Your task to perform on an android device: toggle show notifications on the lock screen Image 0: 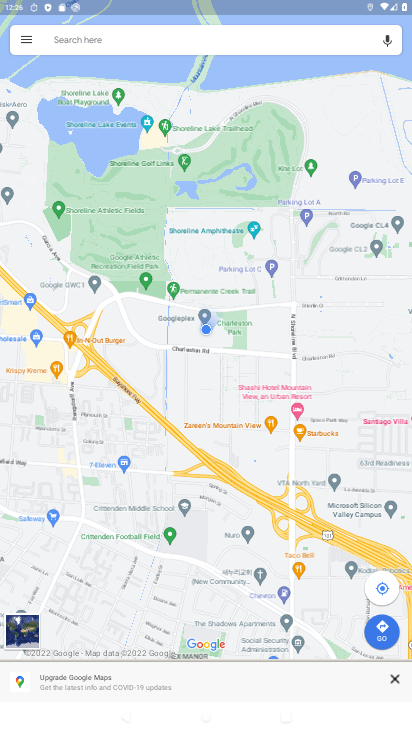
Step 0: press home button
Your task to perform on an android device: toggle show notifications on the lock screen Image 1: 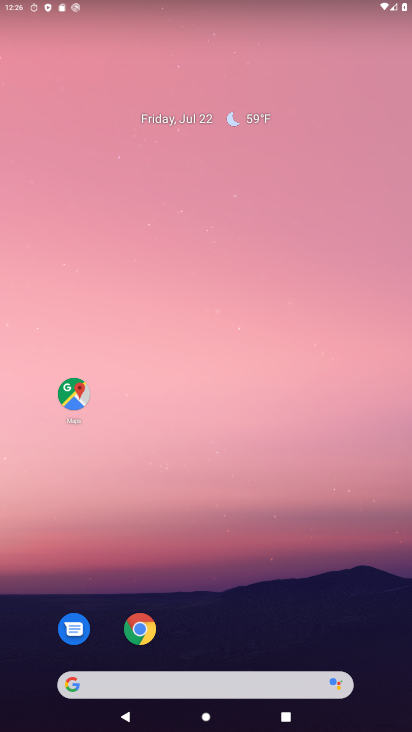
Step 1: drag from (138, 691) to (403, 9)
Your task to perform on an android device: toggle show notifications on the lock screen Image 2: 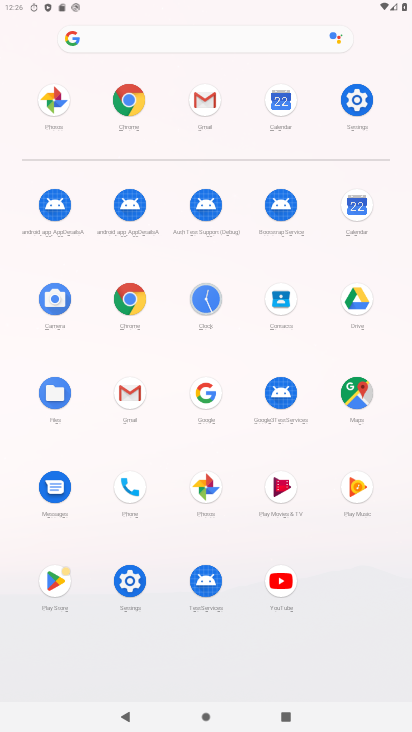
Step 2: click (354, 99)
Your task to perform on an android device: toggle show notifications on the lock screen Image 3: 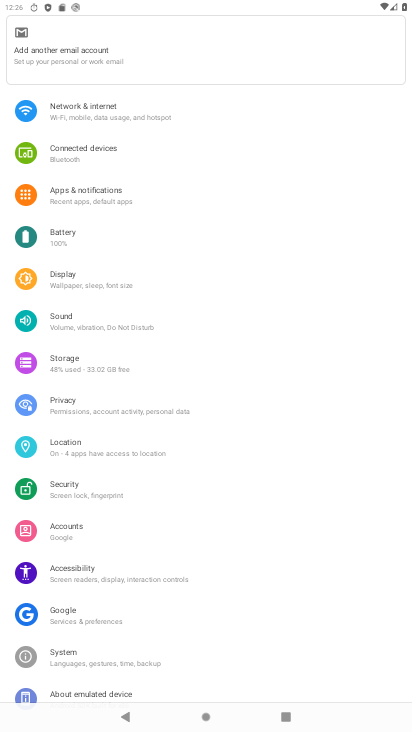
Step 3: click (99, 189)
Your task to perform on an android device: toggle show notifications on the lock screen Image 4: 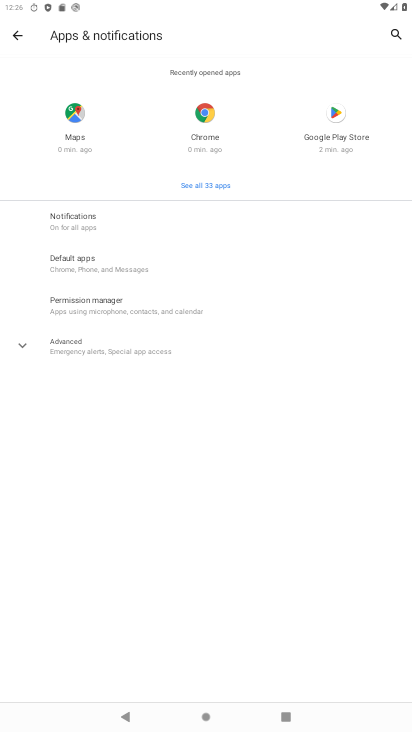
Step 4: click (80, 225)
Your task to perform on an android device: toggle show notifications on the lock screen Image 5: 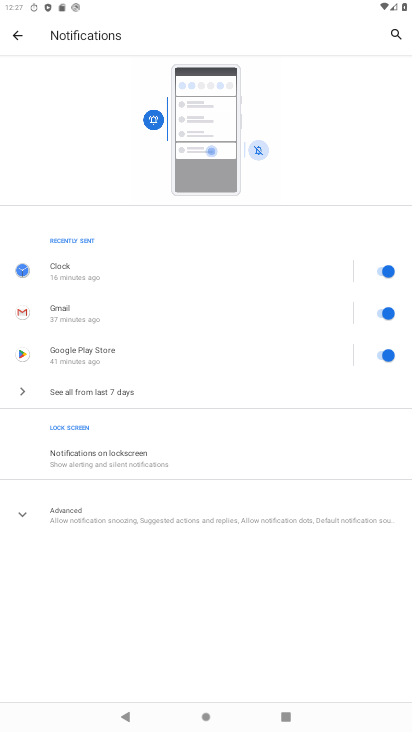
Step 5: click (92, 515)
Your task to perform on an android device: toggle show notifications on the lock screen Image 6: 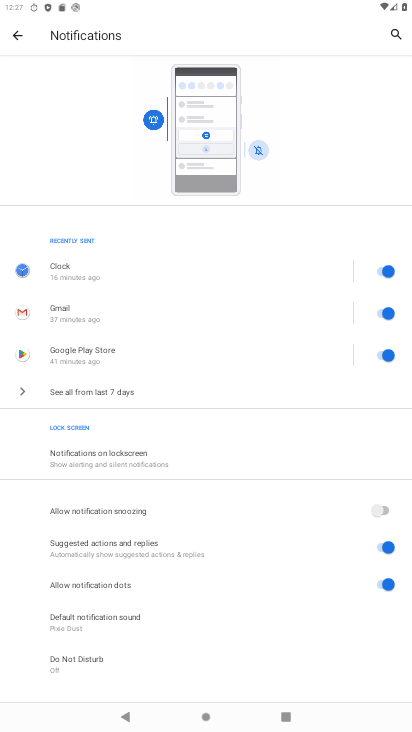
Step 6: click (115, 454)
Your task to perform on an android device: toggle show notifications on the lock screen Image 7: 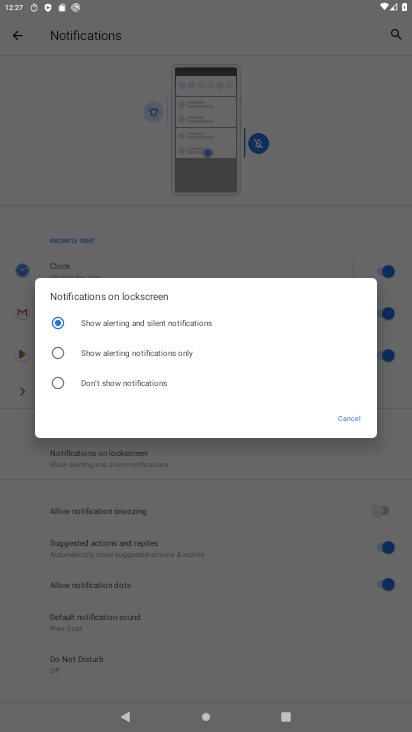
Step 7: click (56, 383)
Your task to perform on an android device: toggle show notifications on the lock screen Image 8: 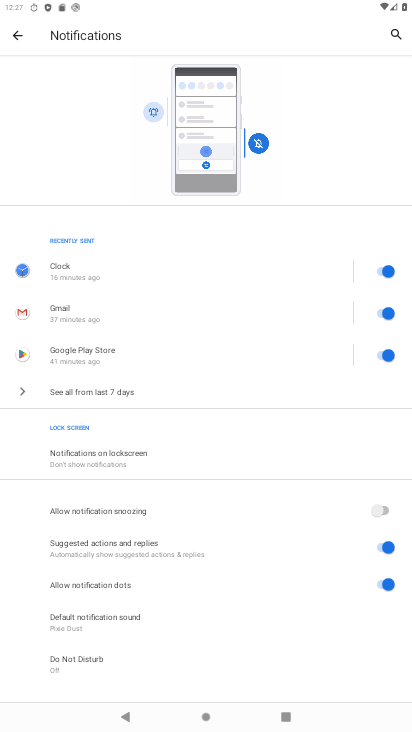
Step 8: task complete